Your task to perform on an android device: open chrome privacy settings Image 0: 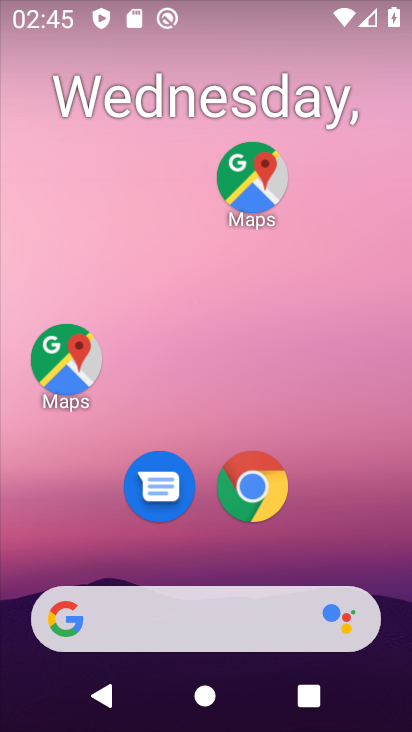
Step 0: click (255, 465)
Your task to perform on an android device: open chrome privacy settings Image 1: 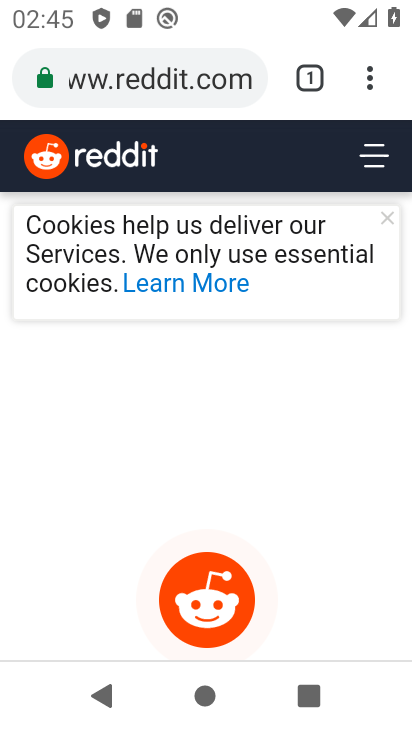
Step 1: click (370, 100)
Your task to perform on an android device: open chrome privacy settings Image 2: 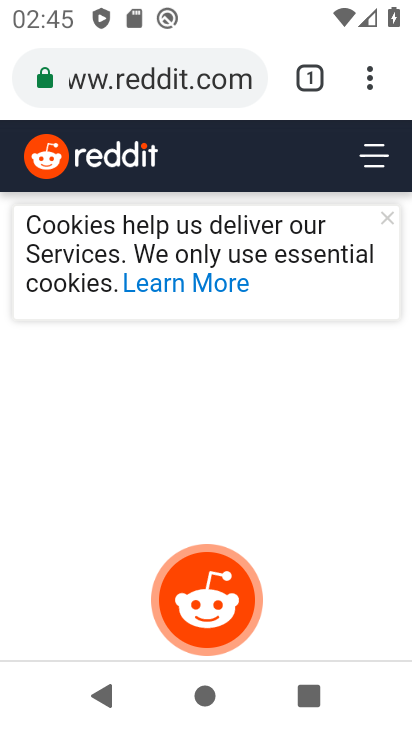
Step 2: drag from (364, 83) to (171, 564)
Your task to perform on an android device: open chrome privacy settings Image 3: 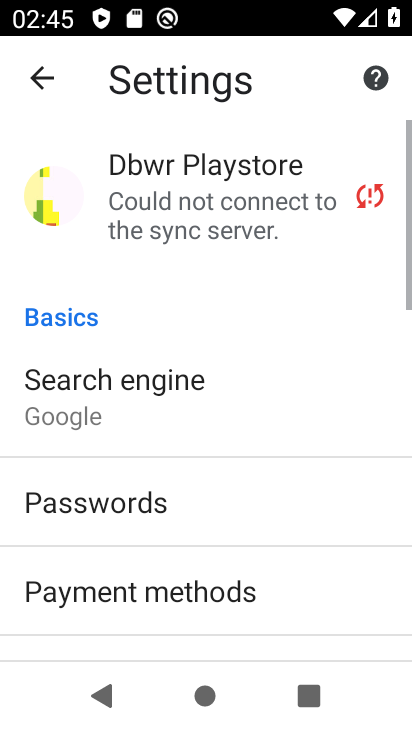
Step 3: drag from (170, 559) to (150, 44)
Your task to perform on an android device: open chrome privacy settings Image 4: 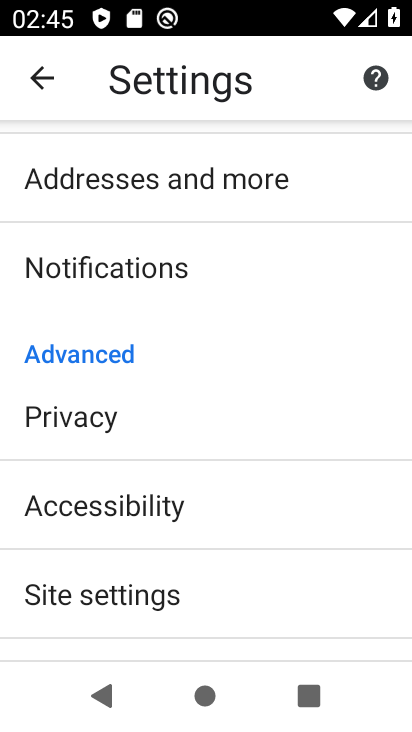
Step 4: click (91, 418)
Your task to perform on an android device: open chrome privacy settings Image 5: 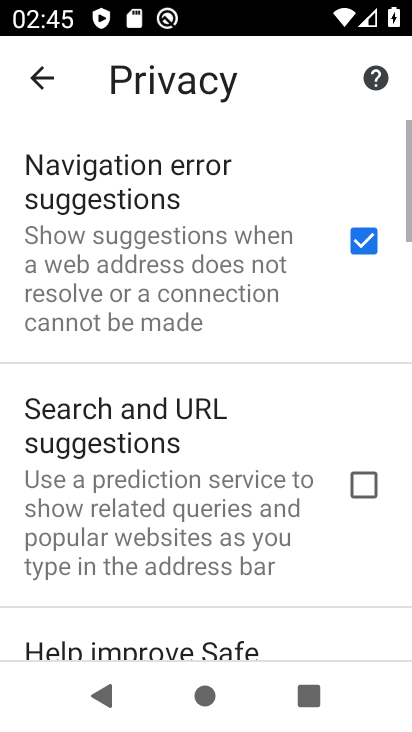
Step 5: task complete